Your task to perform on an android device: Go to Reddit.com Image 0: 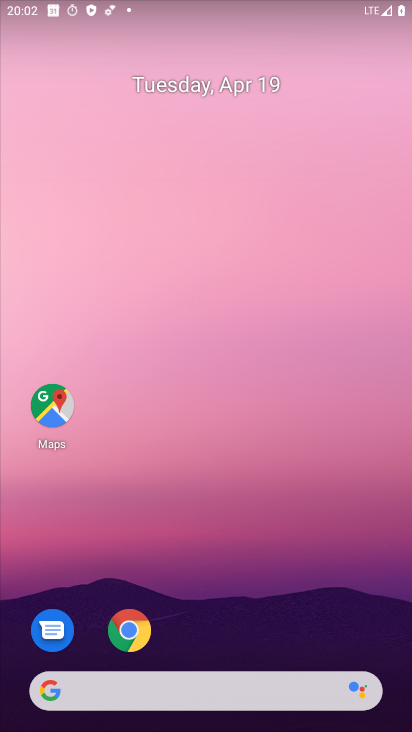
Step 0: click (144, 628)
Your task to perform on an android device: Go to Reddit.com Image 1: 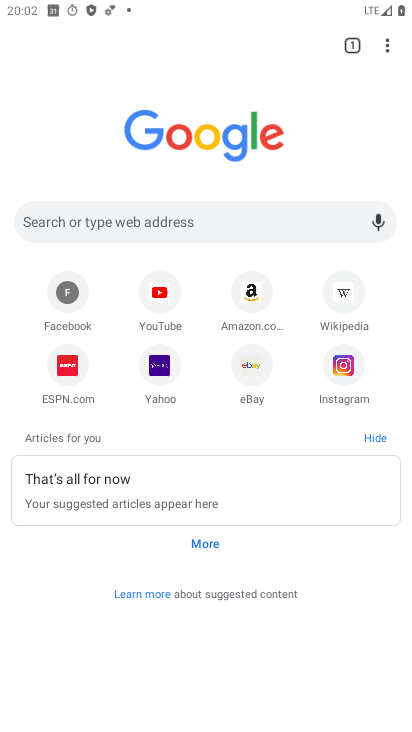
Step 1: click (34, 214)
Your task to perform on an android device: Go to Reddit.com Image 2: 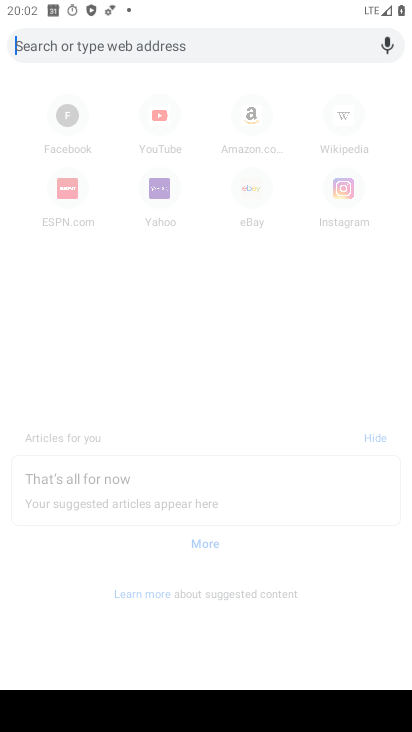
Step 2: type "reddit.com"
Your task to perform on an android device: Go to Reddit.com Image 3: 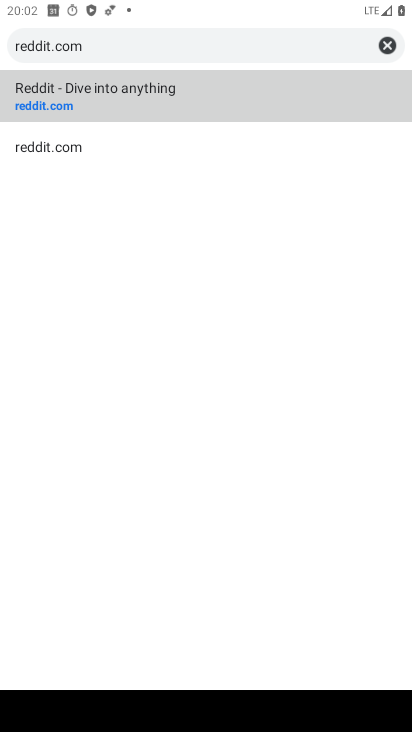
Step 3: click (123, 100)
Your task to perform on an android device: Go to Reddit.com Image 4: 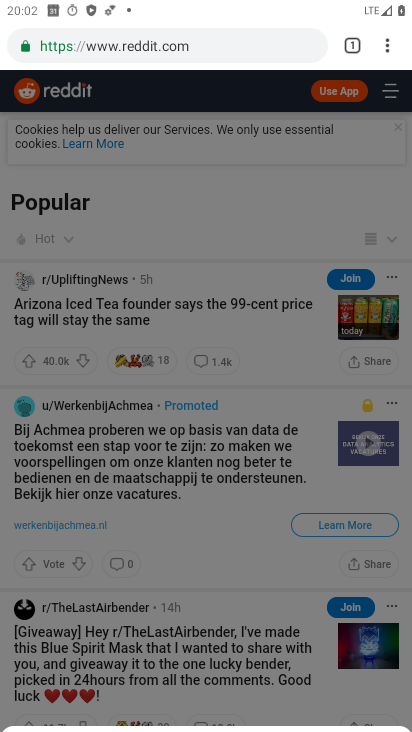
Step 4: task complete